Your task to perform on an android device: Open internet settings Image 0: 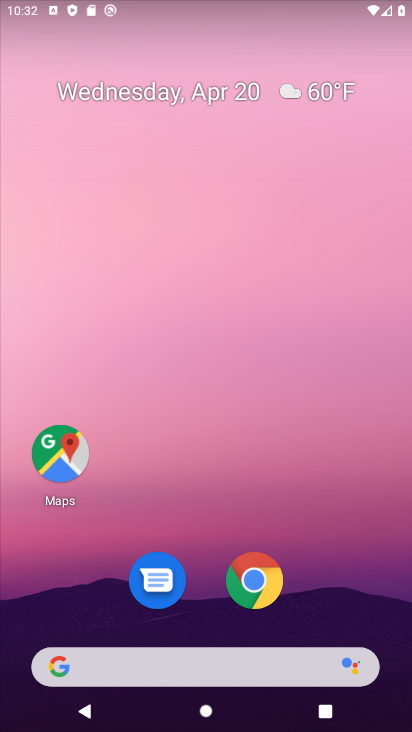
Step 0: drag from (172, 657) to (192, 106)
Your task to perform on an android device: Open internet settings Image 1: 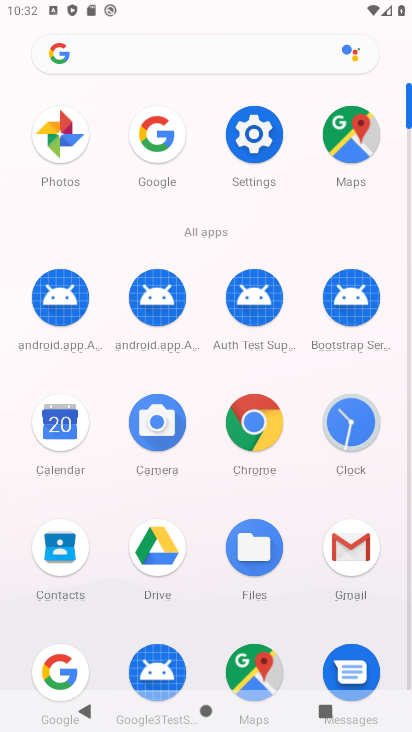
Step 1: click (274, 143)
Your task to perform on an android device: Open internet settings Image 2: 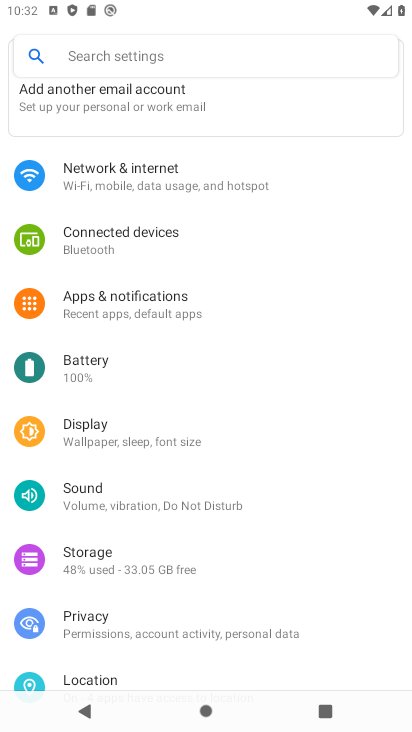
Step 2: click (139, 176)
Your task to perform on an android device: Open internet settings Image 3: 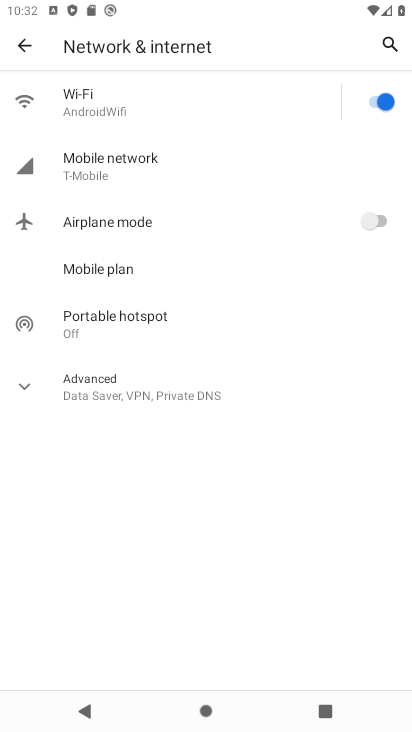
Step 3: task complete